Your task to perform on an android device: Go to accessibility settings Image 0: 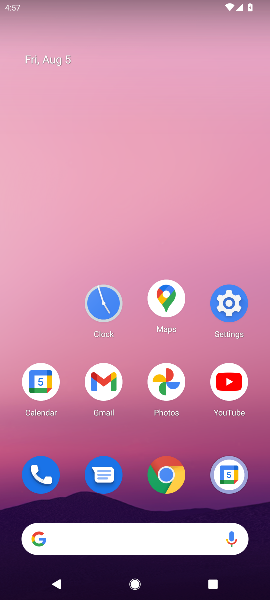
Step 0: click (229, 304)
Your task to perform on an android device: Go to accessibility settings Image 1: 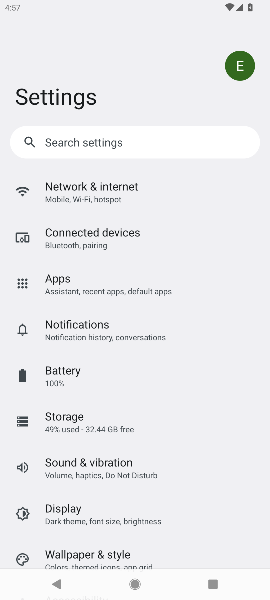
Step 1: drag from (141, 498) to (145, 331)
Your task to perform on an android device: Go to accessibility settings Image 2: 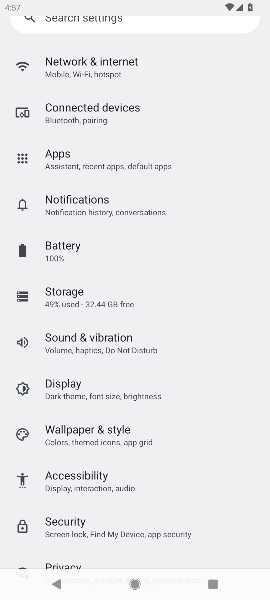
Step 2: click (75, 477)
Your task to perform on an android device: Go to accessibility settings Image 3: 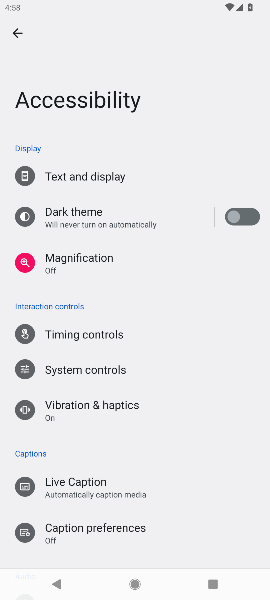
Step 3: task complete